Your task to perform on an android device: turn off location Image 0: 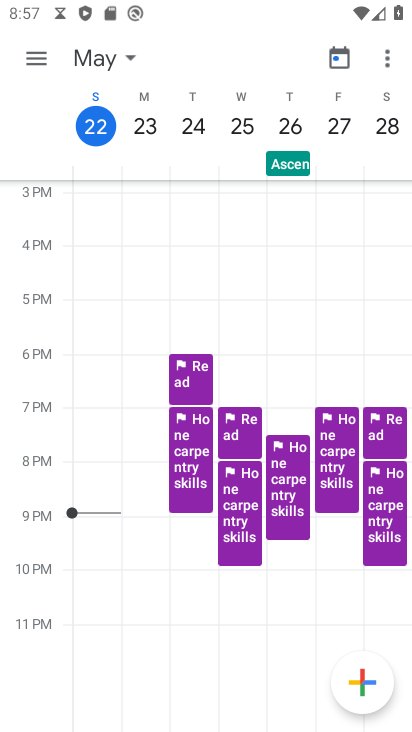
Step 0: press home button
Your task to perform on an android device: turn off location Image 1: 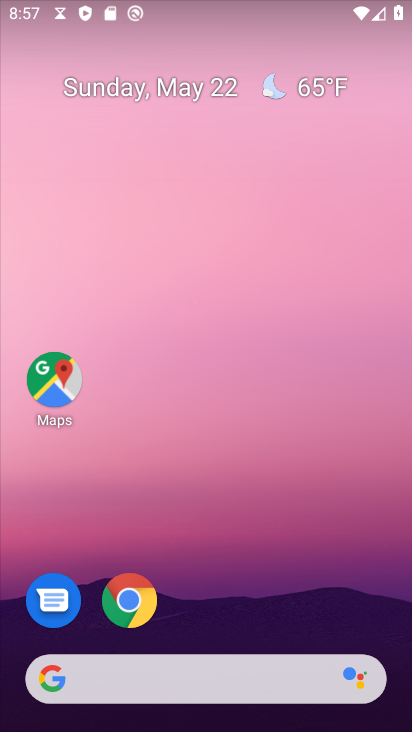
Step 1: click (138, 599)
Your task to perform on an android device: turn off location Image 2: 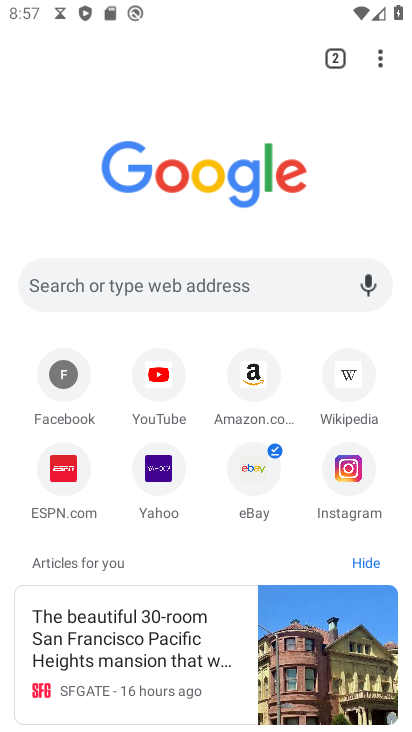
Step 2: press home button
Your task to perform on an android device: turn off location Image 3: 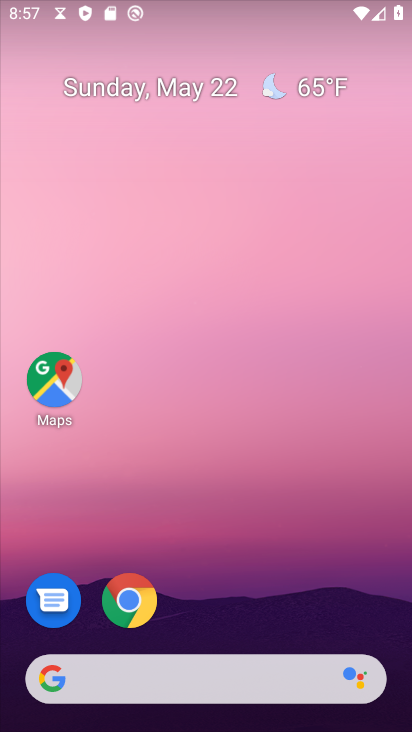
Step 3: drag from (216, 619) to (210, 277)
Your task to perform on an android device: turn off location Image 4: 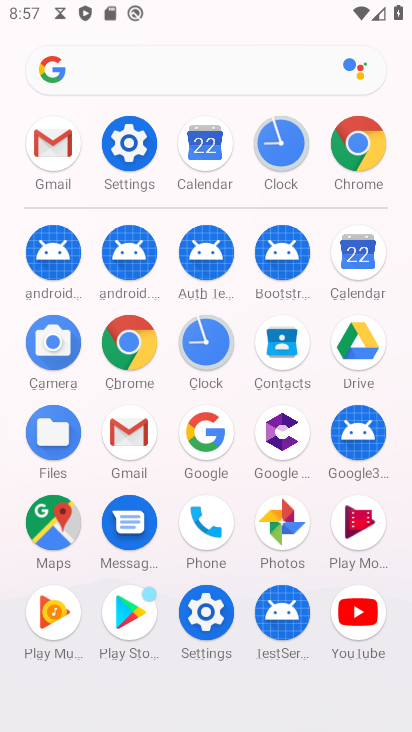
Step 4: click (125, 152)
Your task to perform on an android device: turn off location Image 5: 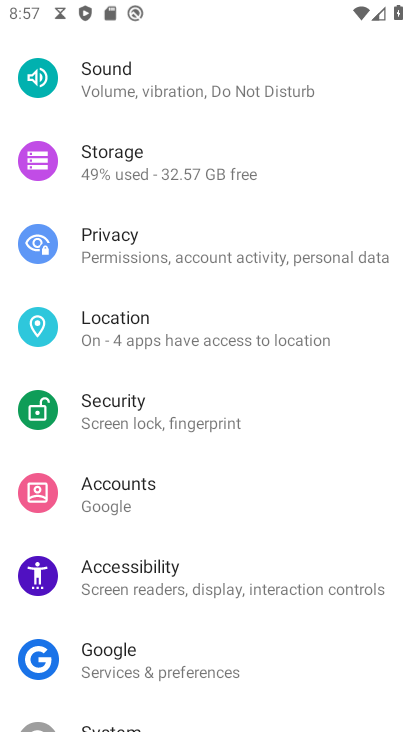
Step 5: click (116, 359)
Your task to perform on an android device: turn off location Image 6: 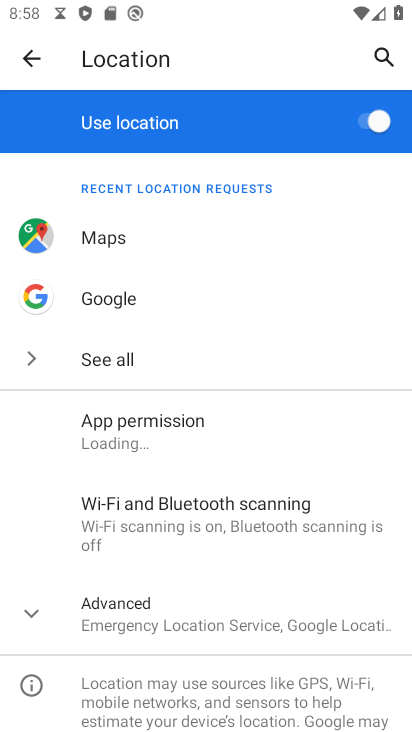
Step 6: click (372, 122)
Your task to perform on an android device: turn off location Image 7: 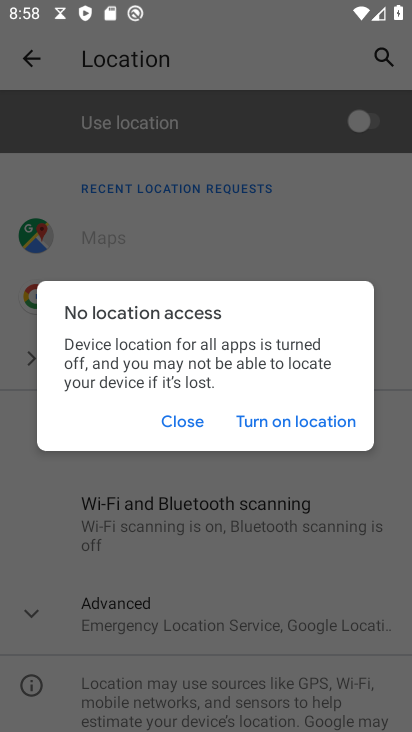
Step 7: task complete